Your task to perform on an android device: remove spam from my inbox in the gmail app Image 0: 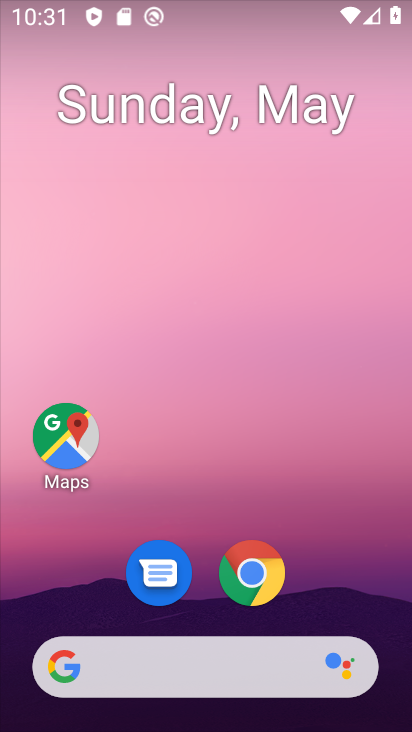
Step 0: drag from (246, 486) to (194, 75)
Your task to perform on an android device: remove spam from my inbox in the gmail app Image 1: 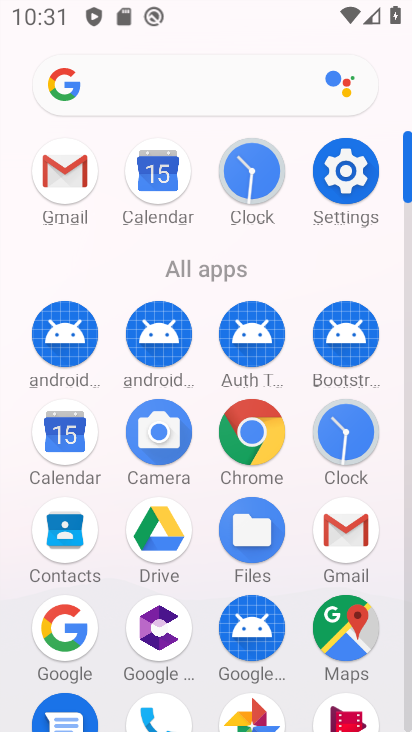
Step 1: click (61, 153)
Your task to perform on an android device: remove spam from my inbox in the gmail app Image 2: 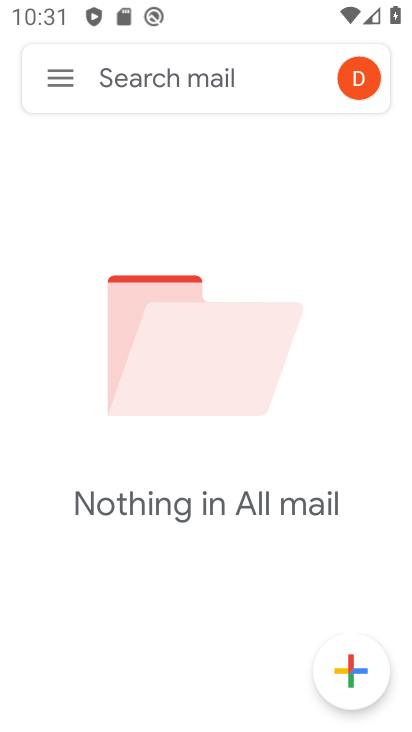
Step 2: click (59, 99)
Your task to perform on an android device: remove spam from my inbox in the gmail app Image 3: 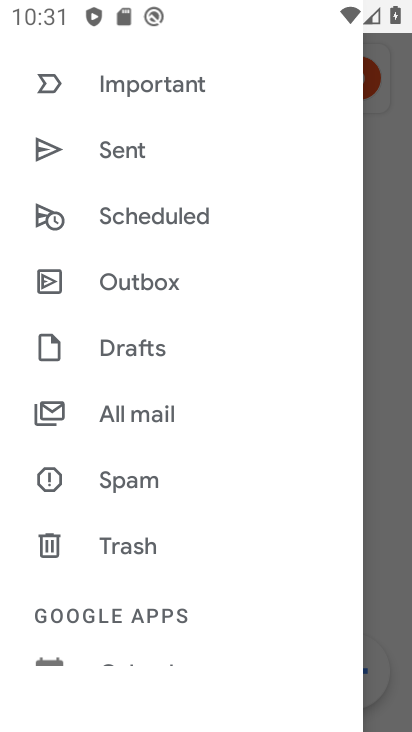
Step 3: click (81, 471)
Your task to perform on an android device: remove spam from my inbox in the gmail app Image 4: 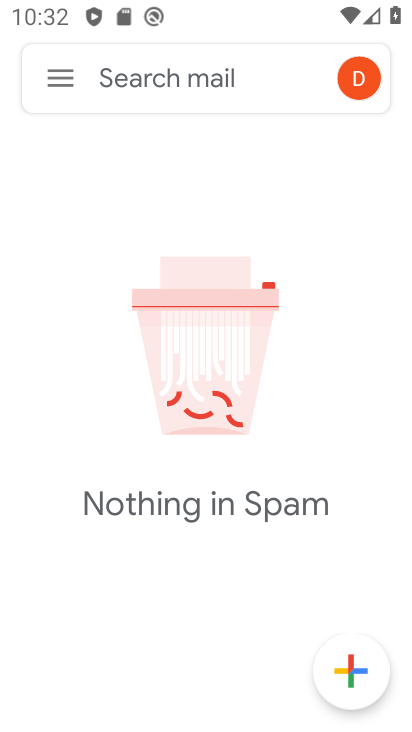
Step 4: task complete